Your task to perform on an android device: visit the assistant section in the google photos Image 0: 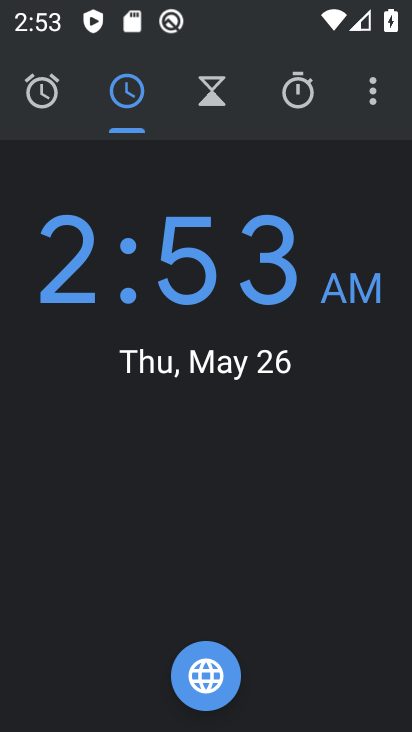
Step 0: press home button
Your task to perform on an android device: visit the assistant section in the google photos Image 1: 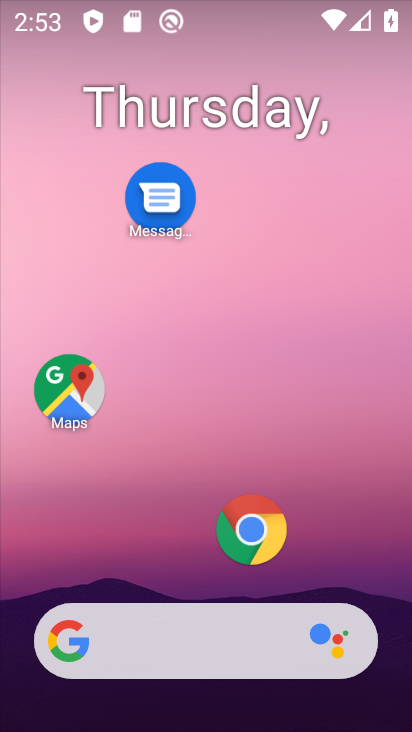
Step 1: drag from (182, 578) to (226, 250)
Your task to perform on an android device: visit the assistant section in the google photos Image 2: 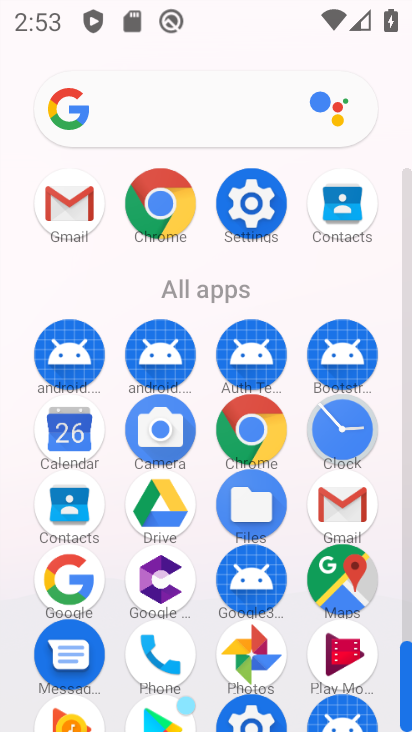
Step 2: click (253, 645)
Your task to perform on an android device: visit the assistant section in the google photos Image 3: 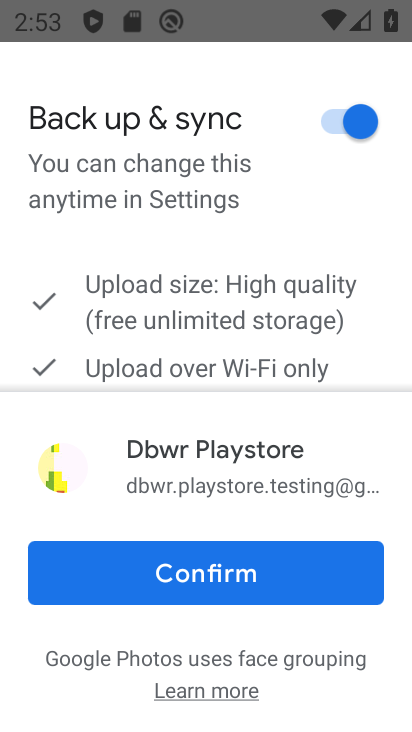
Step 3: click (247, 683)
Your task to perform on an android device: visit the assistant section in the google photos Image 4: 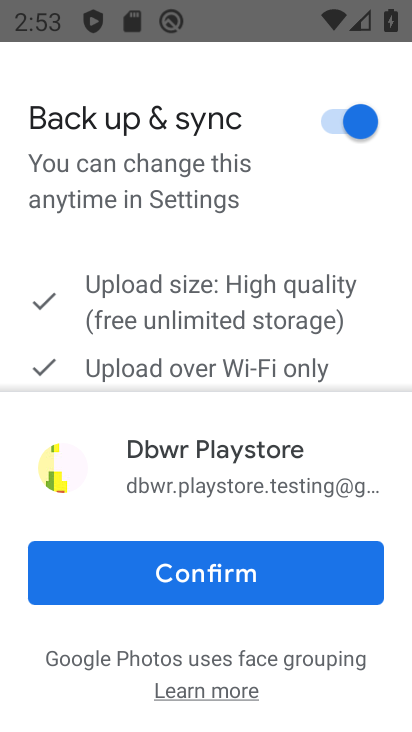
Step 4: click (231, 577)
Your task to perform on an android device: visit the assistant section in the google photos Image 5: 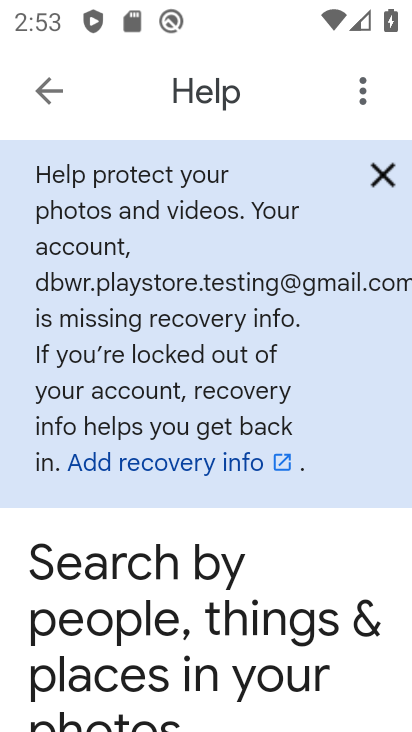
Step 5: click (378, 177)
Your task to perform on an android device: visit the assistant section in the google photos Image 6: 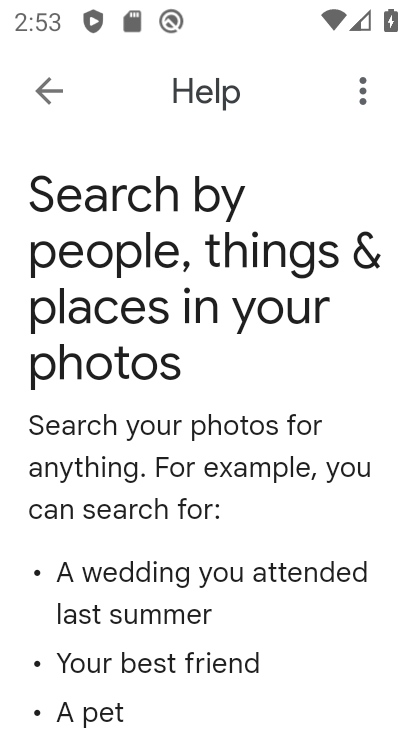
Step 6: click (53, 93)
Your task to perform on an android device: visit the assistant section in the google photos Image 7: 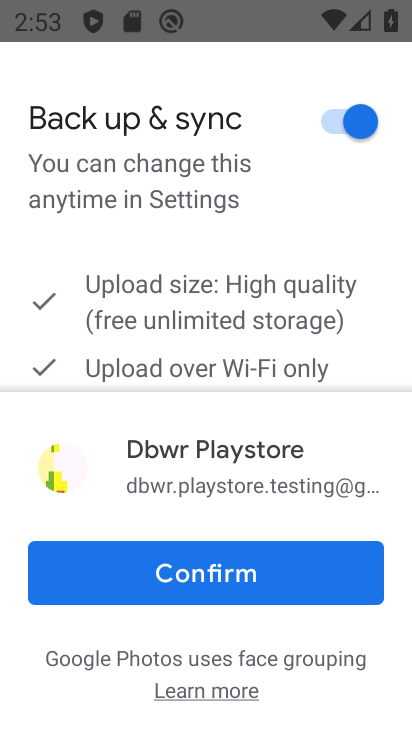
Step 7: click (230, 576)
Your task to perform on an android device: visit the assistant section in the google photos Image 8: 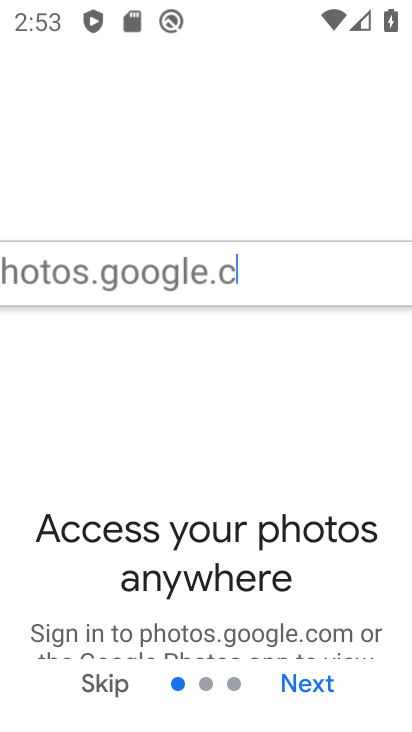
Step 8: click (300, 680)
Your task to perform on an android device: visit the assistant section in the google photos Image 9: 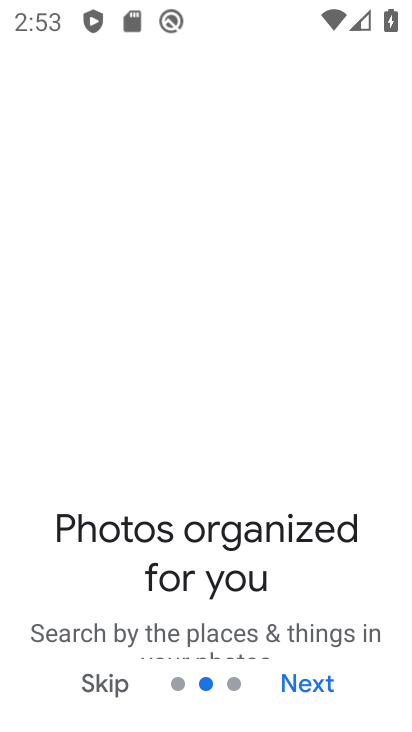
Step 9: click (311, 680)
Your task to perform on an android device: visit the assistant section in the google photos Image 10: 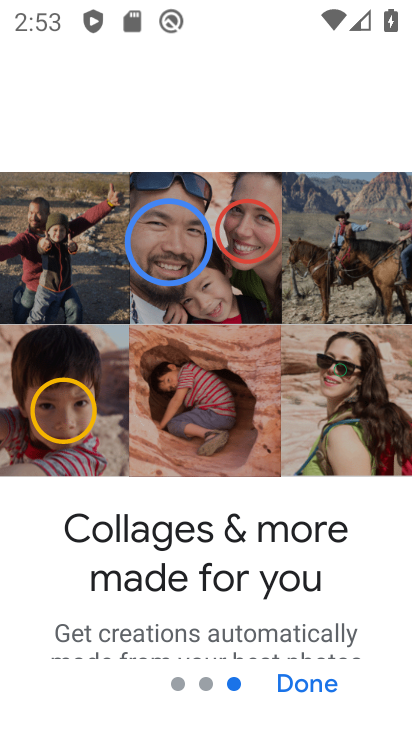
Step 10: click (311, 679)
Your task to perform on an android device: visit the assistant section in the google photos Image 11: 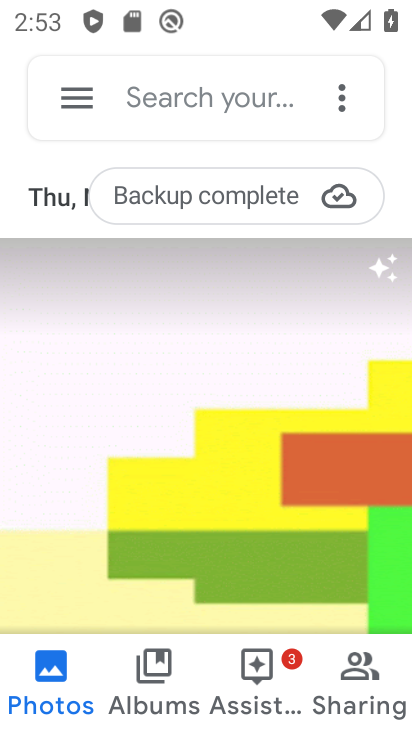
Step 11: click (268, 672)
Your task to perform on an android device: visit the assistant section in the google photos Image 12: 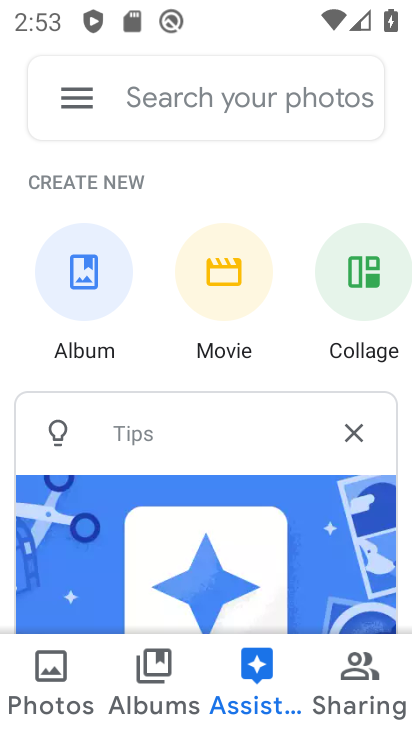
Step 12: task complete